Your task to perform on an android device: turn notification dots off Image 0: 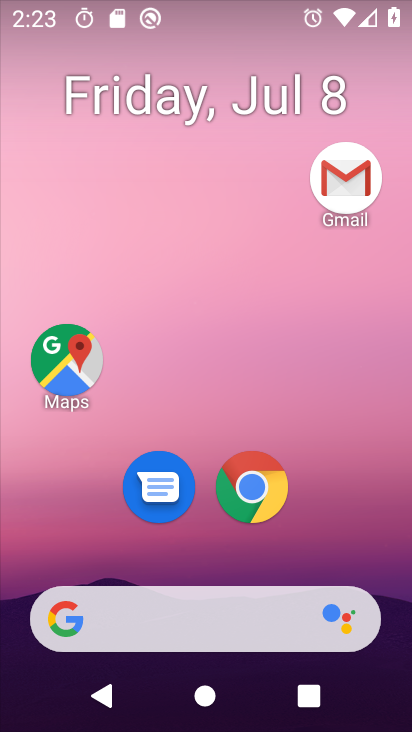
Step 0: drag from (338, 499) to (344, 167)
Your task to perform on an android device: turn notification dots off Image 1: 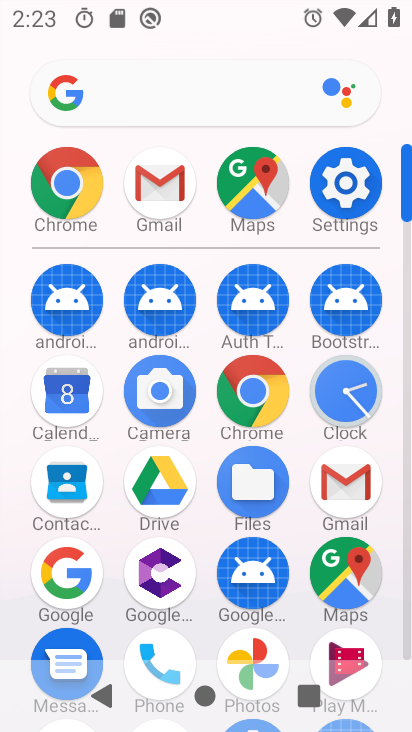
Step 1: click (346, 205)
Your task to perform on an android device: turn notification dots off Image 2: 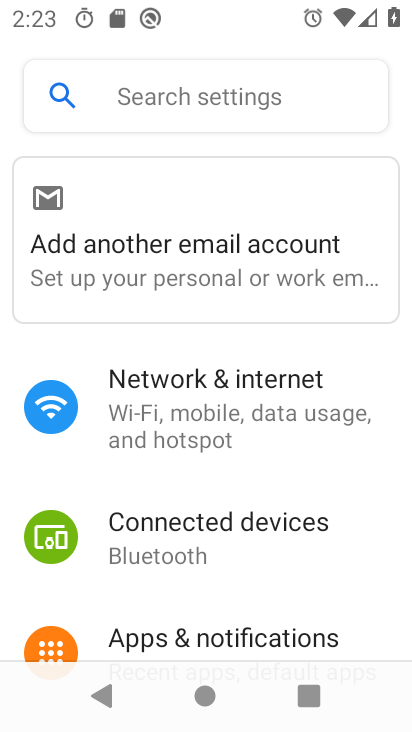
Step 2: drag from (360, 482) to (377, 367)
Your task to perform on an android device: turn notification dots off Image 3: 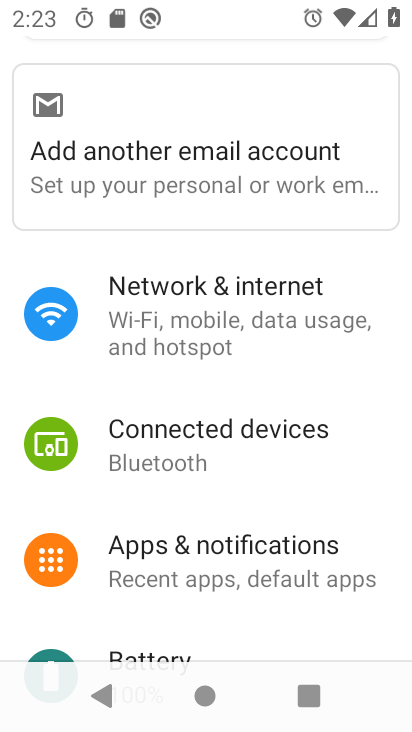
Step 3: drag from (373, 478) to (377, 378)
Your task to perform on an android device: turn notification dots off Image 4: 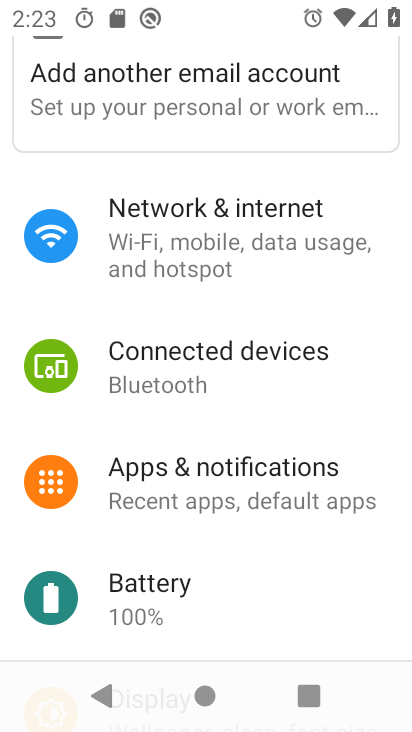
Step 4: drag from (352, 555) to (374, 392)
Your task to perform on an android device: turn notification dots off Image 5: 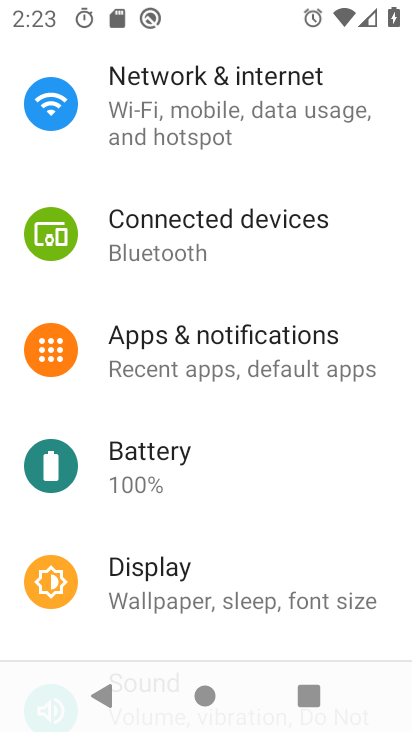
Step 5: drag from (353, 540) to (350, 418)
Your task to perform on an android device: turn notification dots off Image 6: 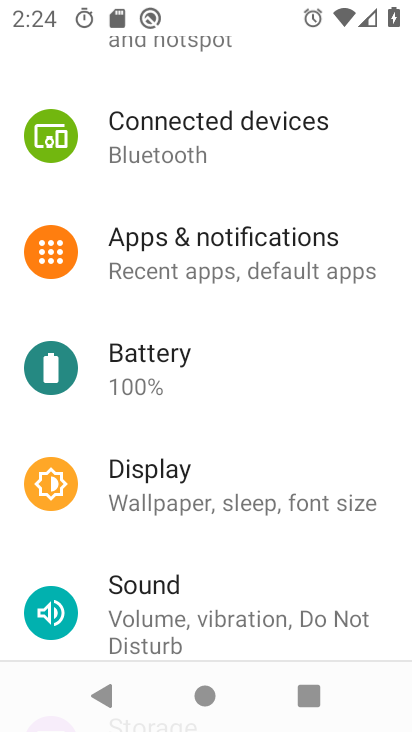
Step 6: drag from (345, 549) to (350, 377)
Your task to perform on an android device: turn notification dots off Image 7: 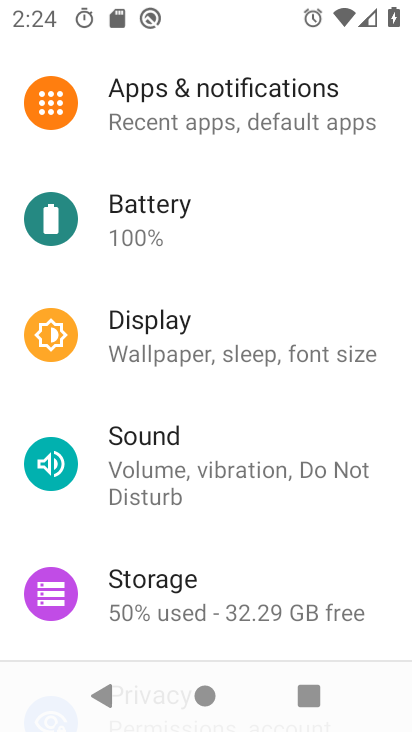
Step 7: drag from (357, 567) to (361, 405)
Your task to perform on an android device: turn notification dots off Image 8: 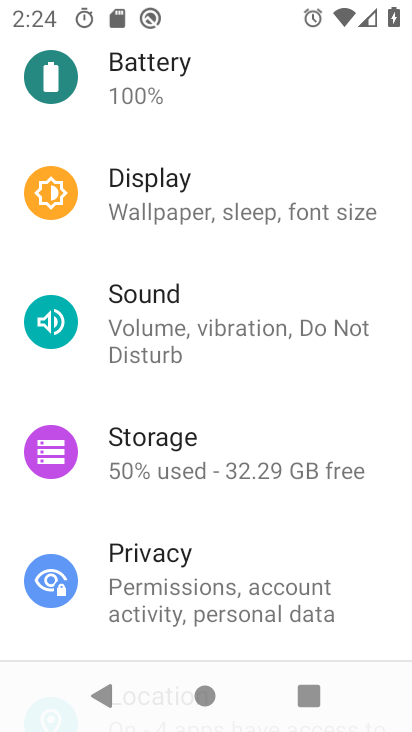
Step 8: drag from (354, 554) to (354, 476)
Your task to perform on an android device: turn notification dots off Image 9: 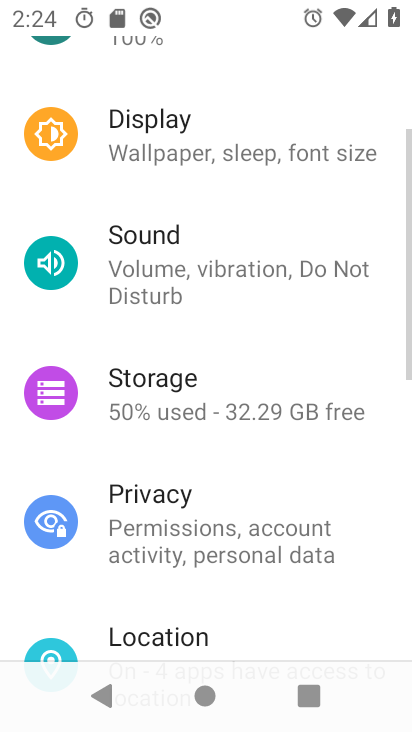
Step 9: drag from (346, 296) to (355, 417)
Your task to perform on an android device: turn notification dots off Image 10: 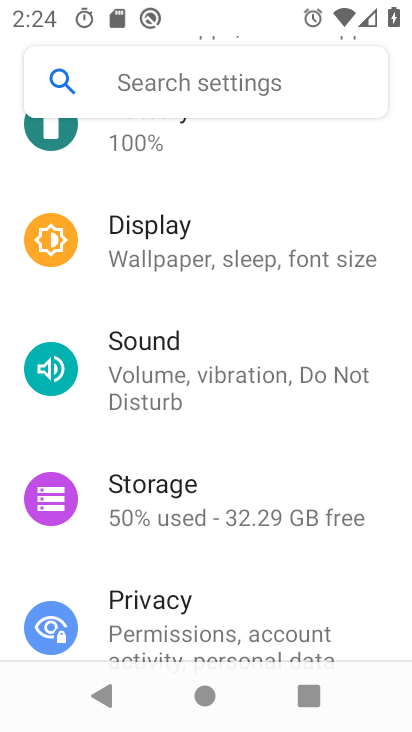
Step 10: drag from (374, 293) to (375, 435)
Your task to perform on an android device: turn notification dots off Image 11: 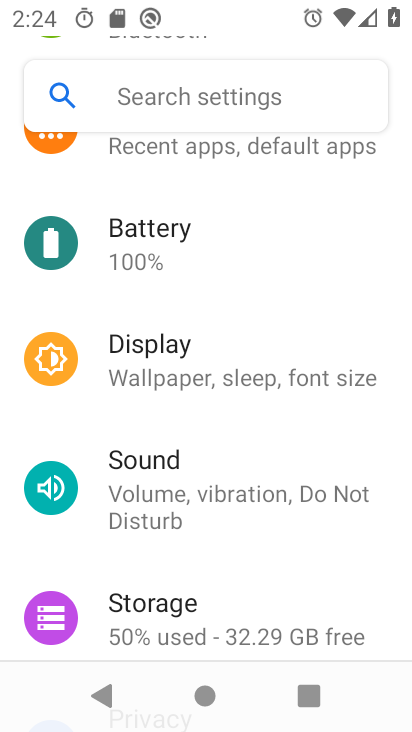
Step 11: drag from (354, 232) to (346, 428)
Your task to perform on an android device: turn notification dots off Image 12: 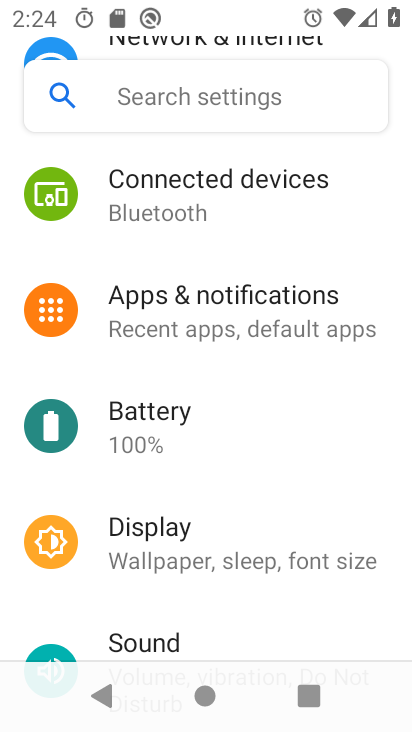
Step 12: drag from (369, 243) to (371, 396)
Your task to perform on an android device: turn notification dots off Image 13: 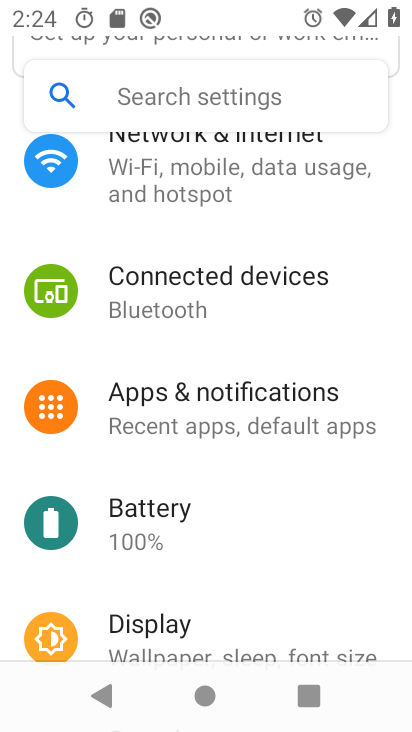
Step 13: click (314, 408)
Your task to perform on an android device: turn notification dots off Image 14: 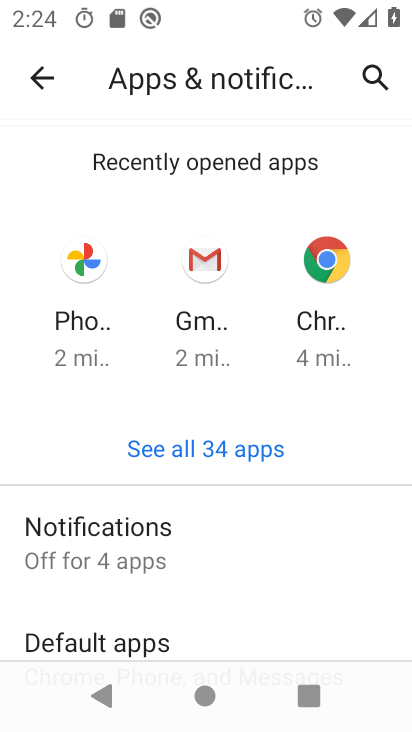
Step 14: drag from (324, 556) to (338, 398)
Your task to perform on an android device: turn notification dots off Image 15: 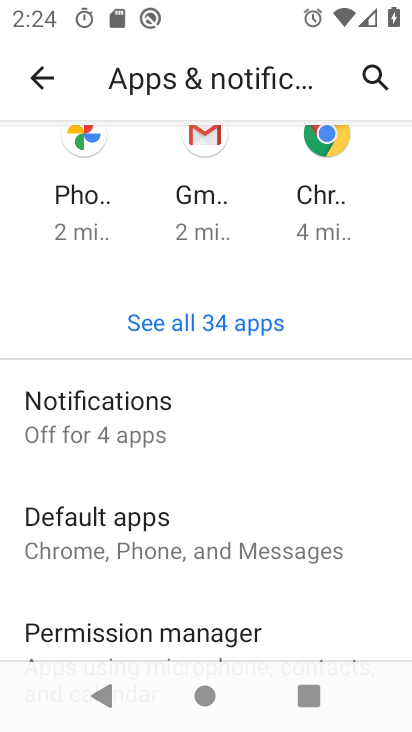
Step 15: click (119, 421)
Your task to perform on an android device: turn notification dots off Image 16: 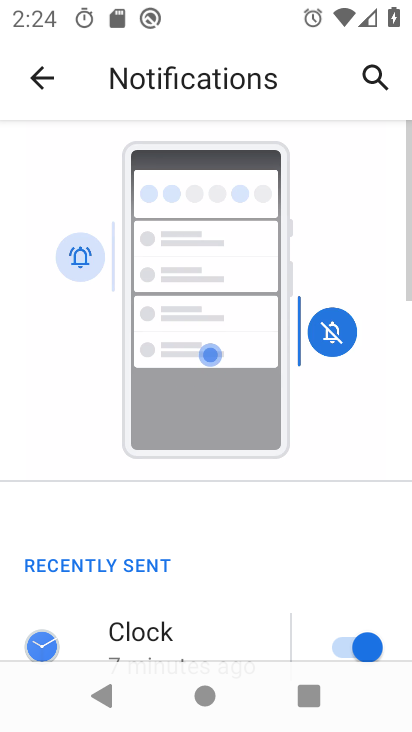
Step 16: drag from (317, 507) to (316, 317)
Your task to perform on an android device: turn notification dots off Image 17: 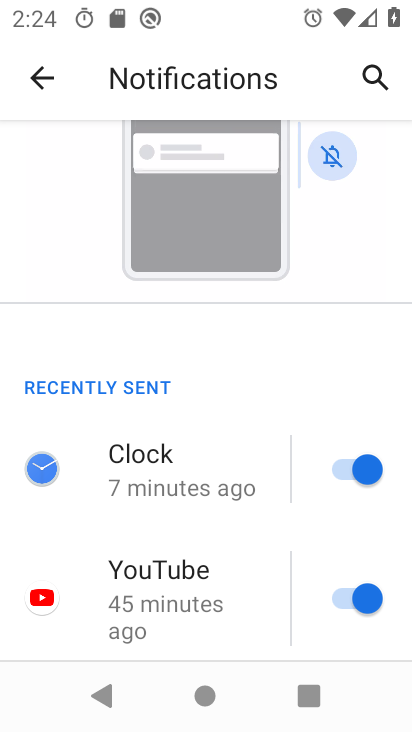
Step 17: drag from (272, 570) to (250, 391)
Your task to perform on an android device: turn notification dots off Image 18: 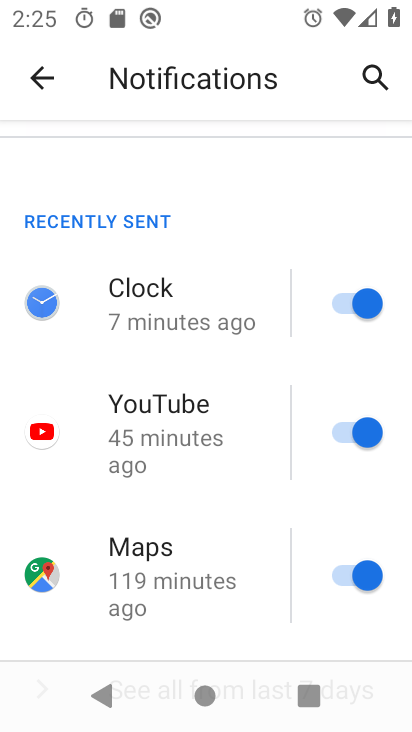
Step 18: drag from (251, 547) to (259, 376)
Your task to perform on an android device: turn notification dots off Image 19: 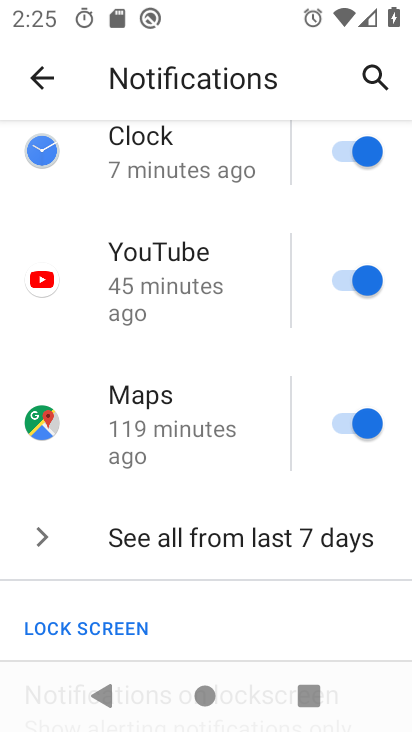
Step 19: drag from (237, 590) to (250, 414)
Your task to perform on an android device: turn notification dots off Image 20: 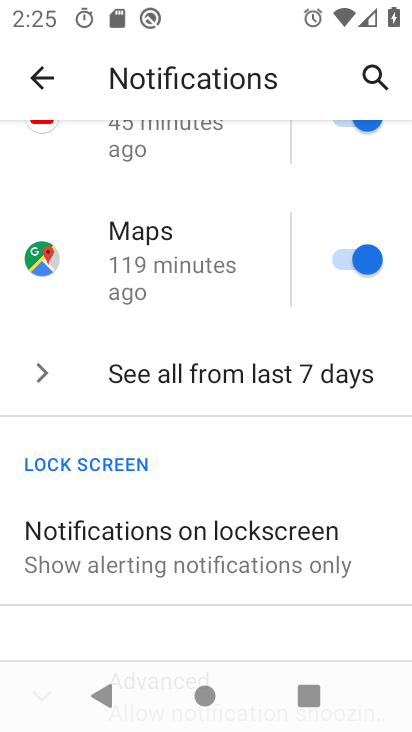
Step 20: drag from (271, 577) to (262, 389)
Your task to perform on an android device: turn notification dots off Image 21: 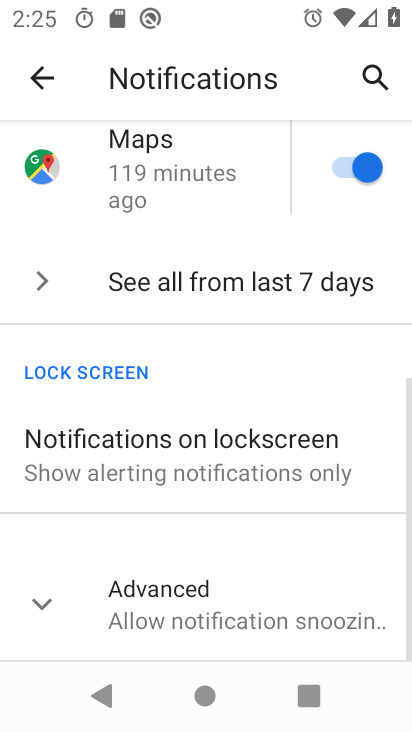
Step 21: click (275, 602)
Your task to perform on an android device: turn notification dots off Image 22: 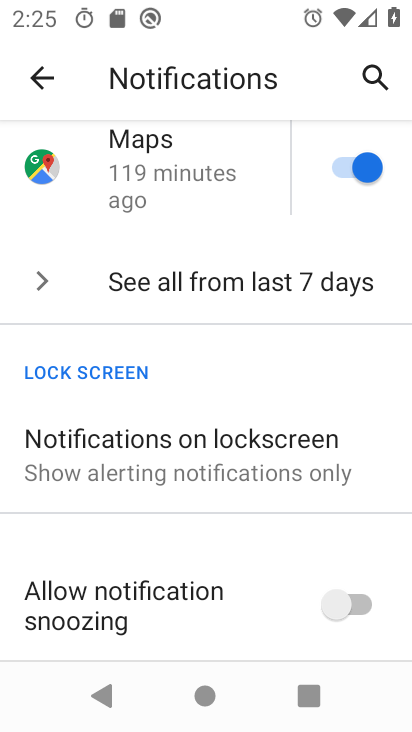
Step 22: drag from (275, 602) to (264, 418)
Your task to perform on an android device: turn notification dots off Image 23: 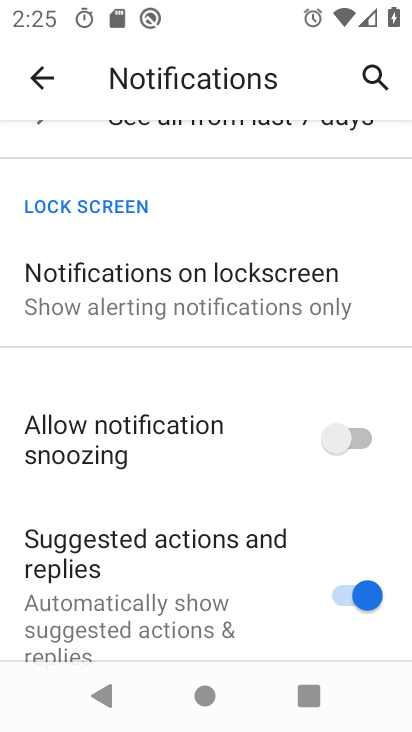
Step 23: drag from (250, 625) to (277, 443)
Your task to perform on an android device: turn notification dots off Image 24: 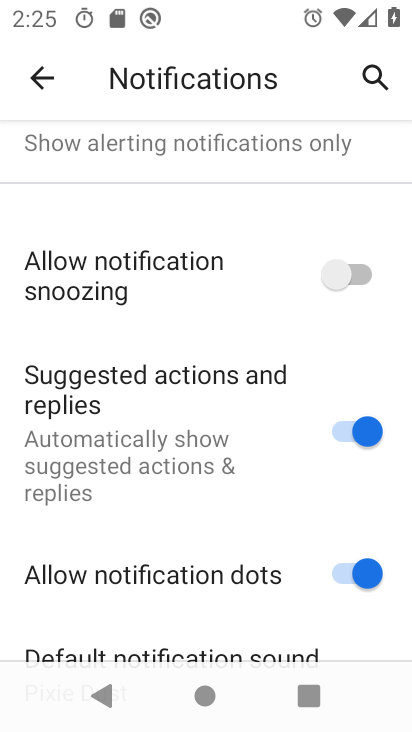
Step 24: drag from (270, 599) to (278, 474)
Your task to perform on an android device: turn notification dots off Image 25: 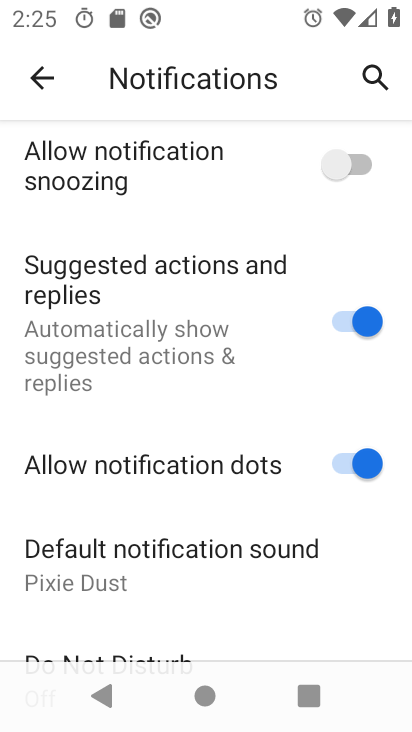
Step 25: click (361, 470)
Your task to perform on an android device: turn notification dots off Image 26: 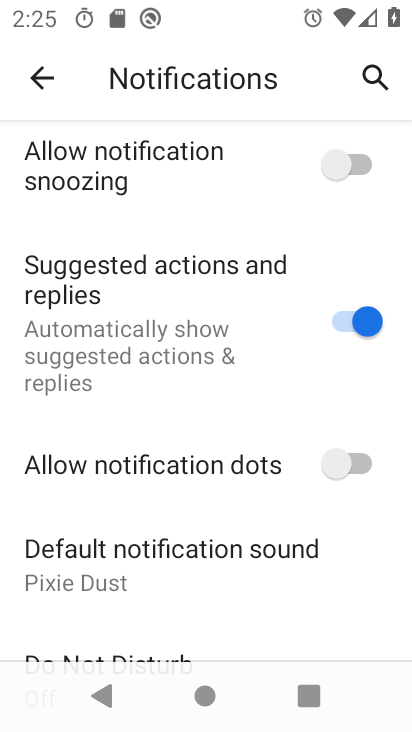
Step 26: task complete